Your task to perform on an android device: Open the calendar and show me this week's events? Image 0: 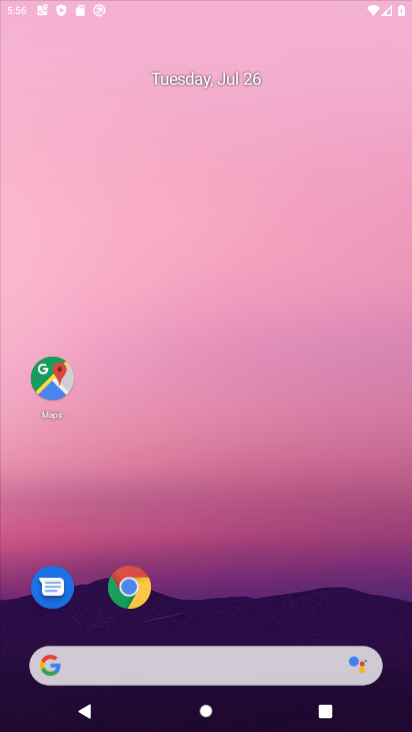
Step 0: click (203, 132)
Your task to perform on an android device: Open the calendar and show me this week's events? Image 1: 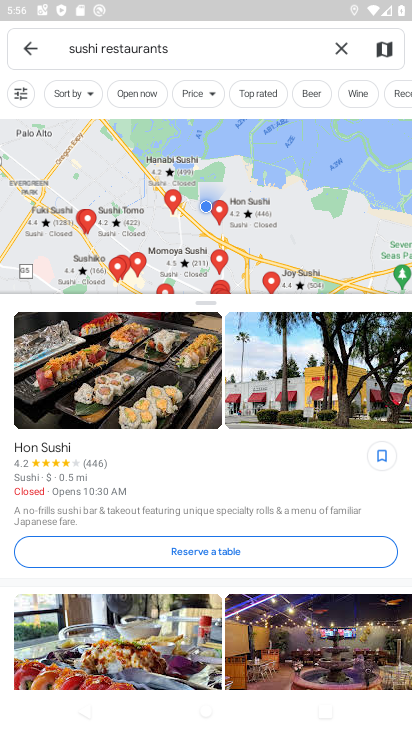
Step 1: press home button
Your task to perform on an android device: Open the calendar and show me this week's events? Image 2: 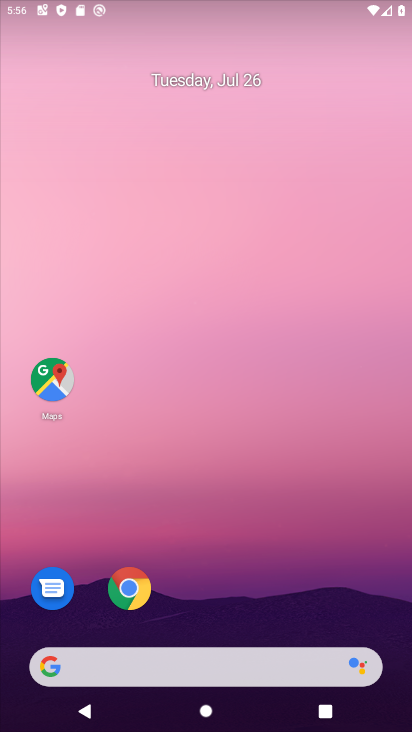
Step 2: drag from (185, 644) to (140, 190)
Your task to perform on an android device: Open the calendar and show me this week's events? Image 3: 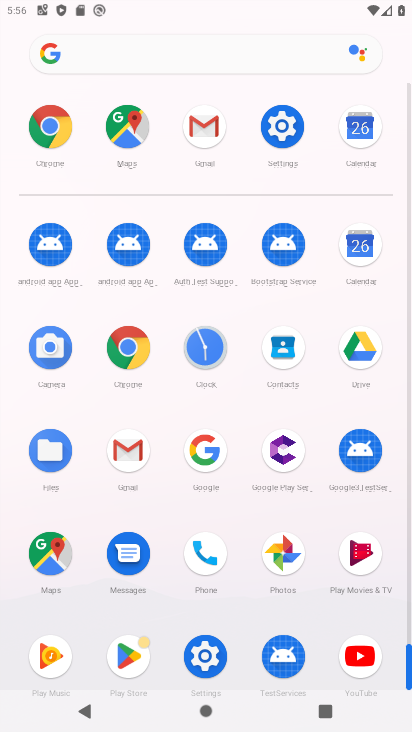
Step 3: click (339, 249)
Your task to perform on an android device: Open the calendar and show me this week's events? Image 4: 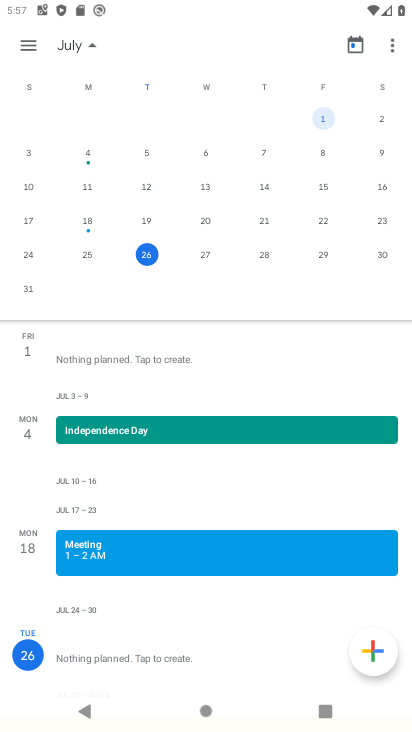
Step 4: click (149, 256)
Your task to perform on an android device: Open the calendar and show me this week's events? Image 5: 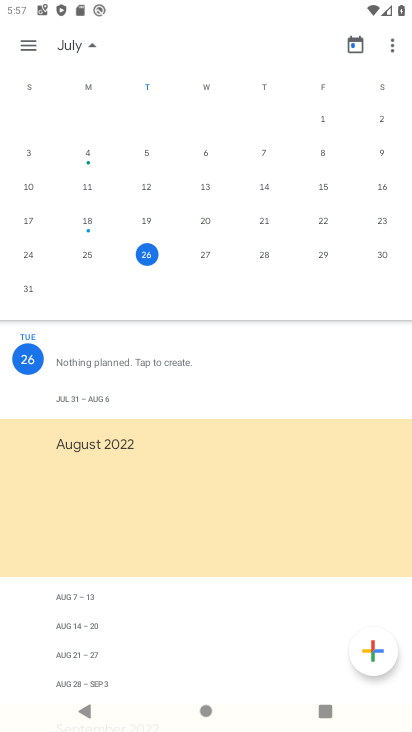
Step 5: task complete